Your task to perform on an android device: toggle improve location accuracy Image 0: 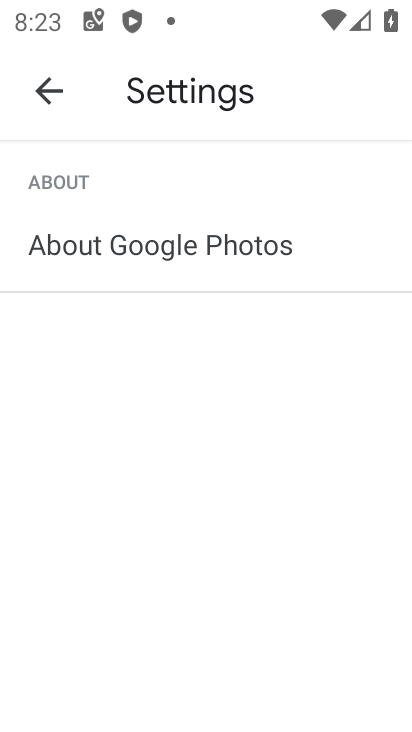
Step 0: press home button
Your task to perform on an android device: toggle improve location accuracy Image 1: 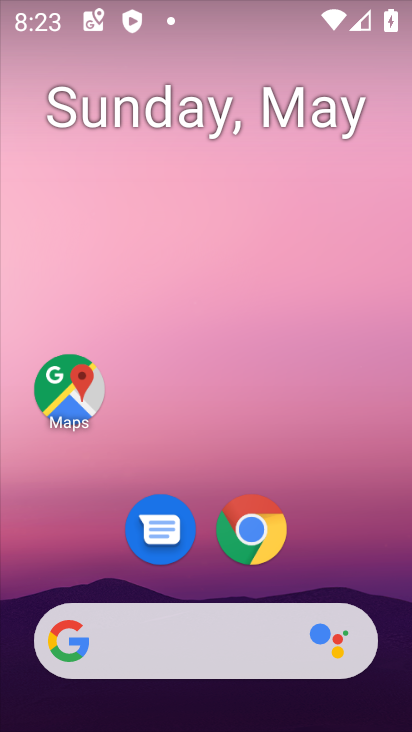
Step 1: drag from (367, 459) to (404, 20)
Your task to perform on an android device: toggle improve location accuracy Image 2: 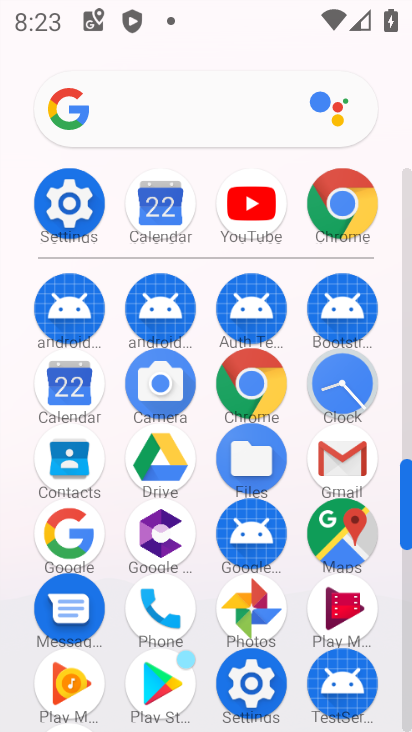
Step 2: click (73, 214)
Your task to perform on an android device: toggle improve location accuracy Image 3: 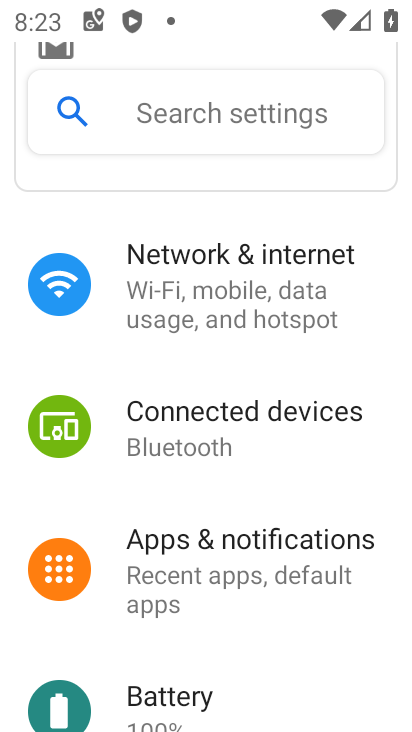
Step 3: drag from (298, 579) to (272, 194)
Your task to perform on an android device: toggle improve location accuracy Image 4: 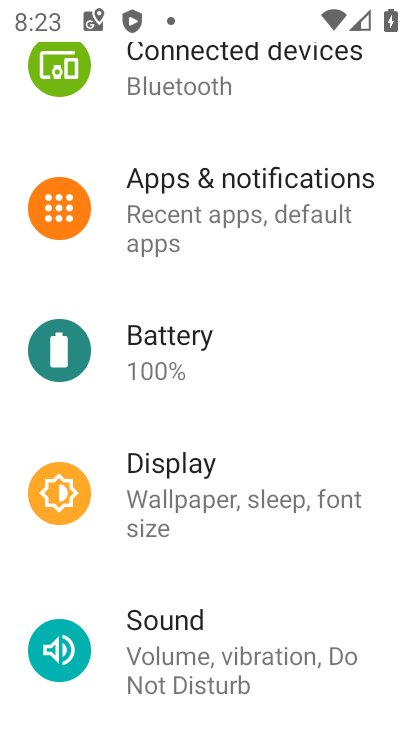
Step 4: drag from (299, 568) to (228, 98)
Your task to perform on an android device: toggle improve location accuracy Image 5: 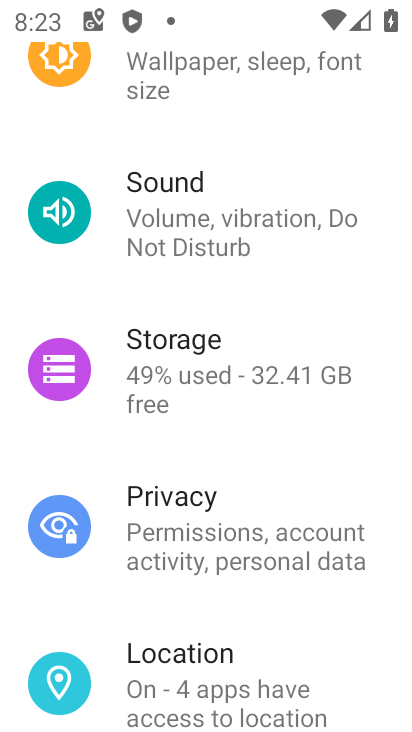
Step 5: click (165, 660)
Your task to perform on an android device: toggle improve location accuracy Image 6: 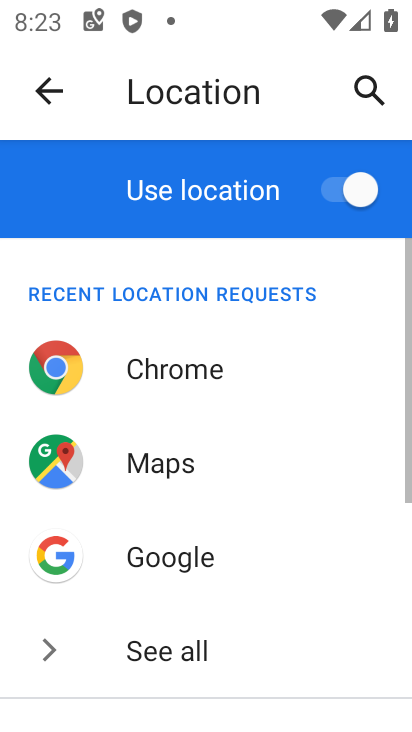
Step 6: drag from (251, 686) to (271, 35)
Your task to perform on an android device: toggle improve location accuracy Image 7: 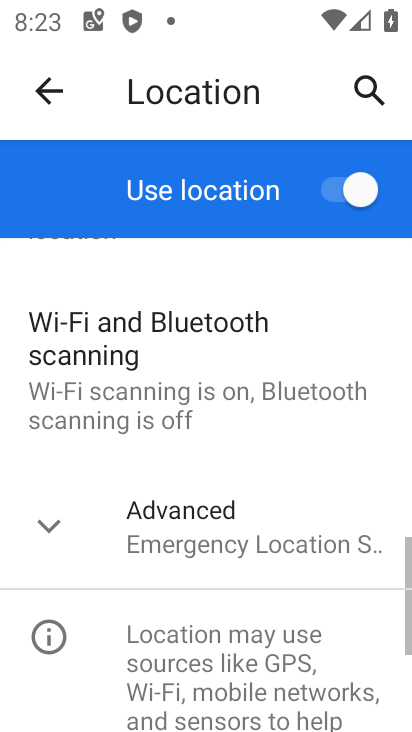
Step 7: click (46, 535)
Your task to perform on an android device: toggle improve location accuracy Image 8: 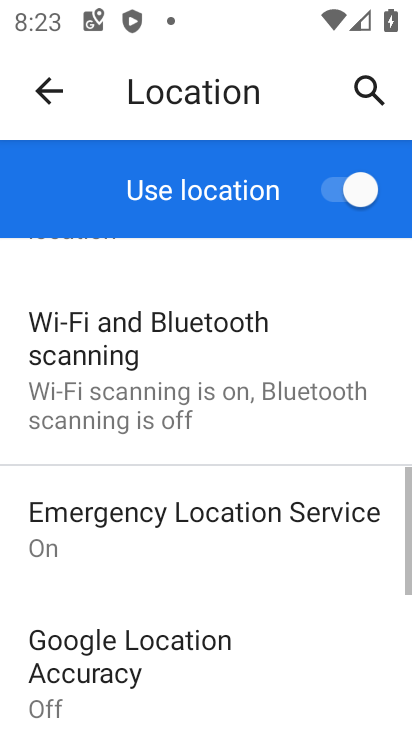
Step 8: drag from (200, 624) to (179, 244)
Your task to perform on an android device: toggle improve location accuracy Image 9: 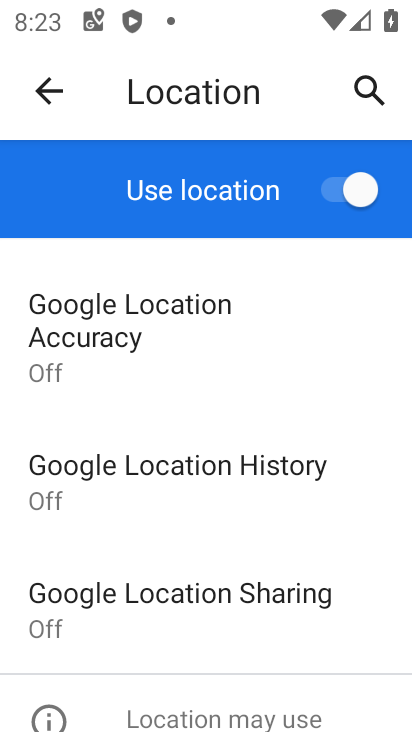
Step 9: click (87, 340)
Your task to perform on an android device: toggle improve location accuracy Image 10: 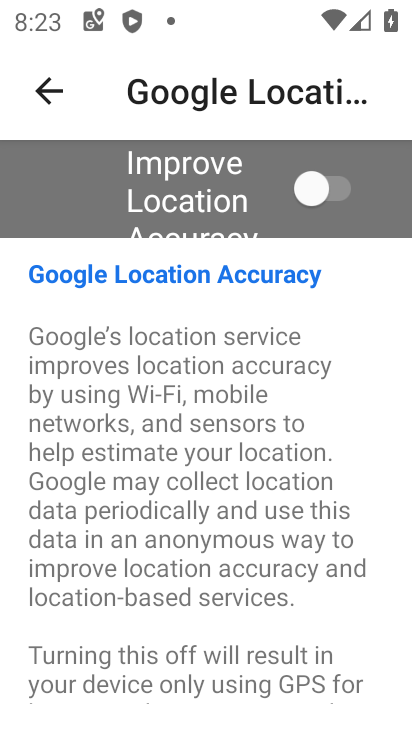
Step 10: click (323, 181)
Your task to perform on an android device: toggle improve location accuracy Image 11: 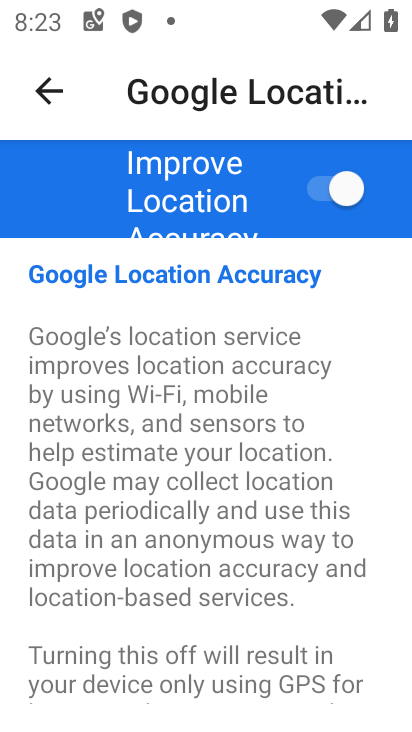
Step 11: task complete